Your task to perform on an android device: open a new tab in the chrome app Image 0: 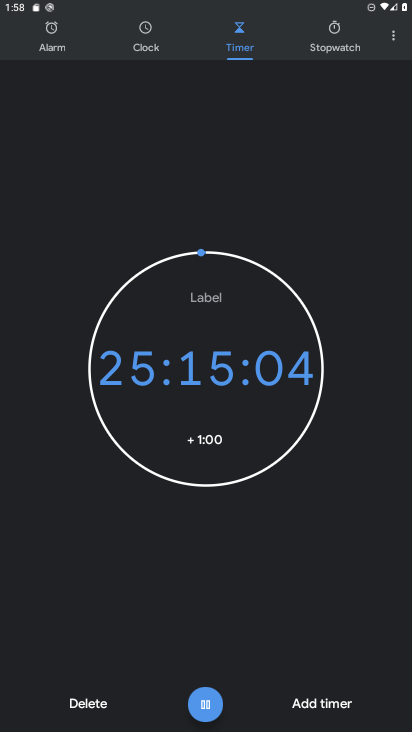
Step 0: press home button
Your task to perform on an android device: open a new tab in the chrome app Image 1: 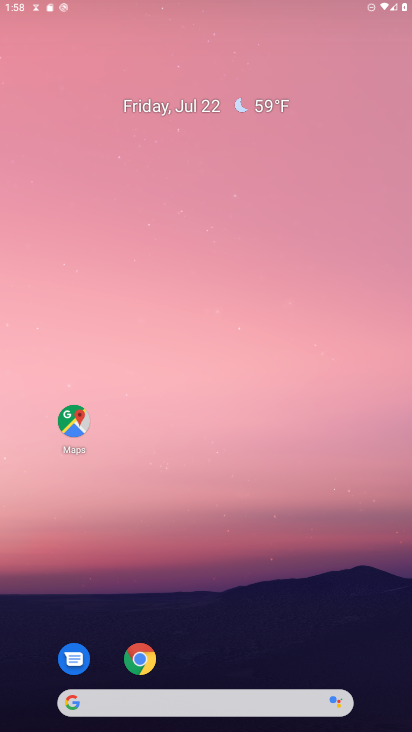
Step 1: drag from (265, 683) to (344, 32)
Your task to perform on an android device: open a new tab in the chrome app Image 2: 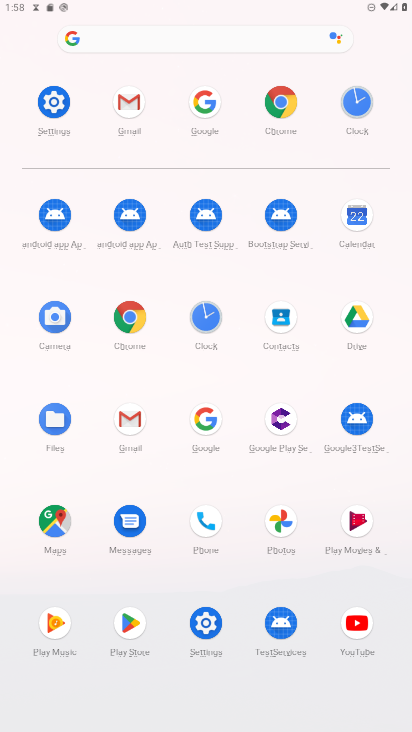
Step 2: click (280, 107)
Your task to perform on an android device: open a new tab in the chrome app Image 3: 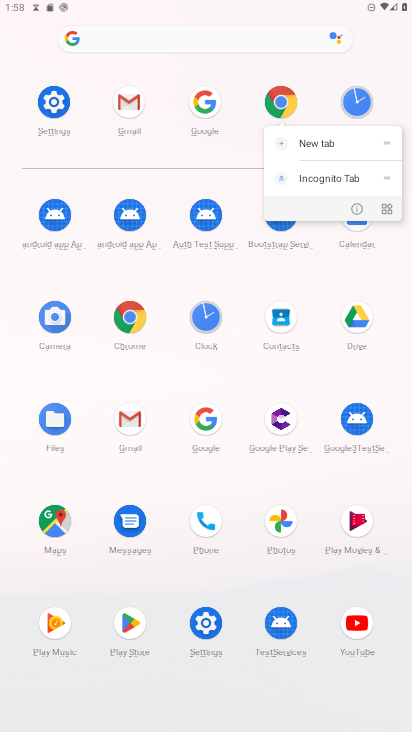
Step 3: click (280, 107)
Your task to perform on an android device: open a new tab in the chrome app Image 4: 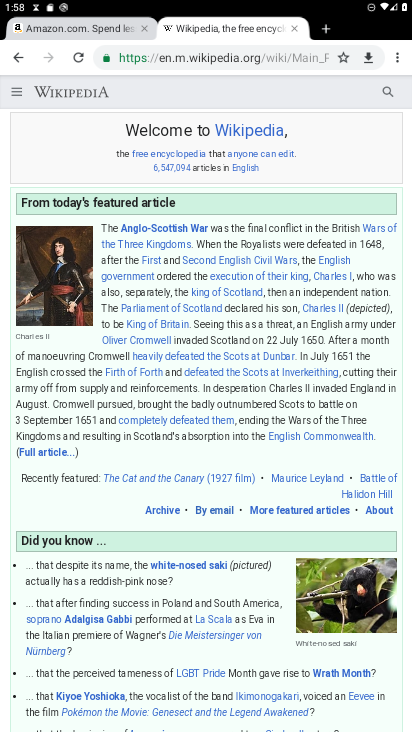
Step 4: task complete